Your task to perform on an android device: delete a single message in the gmail app Image 0: 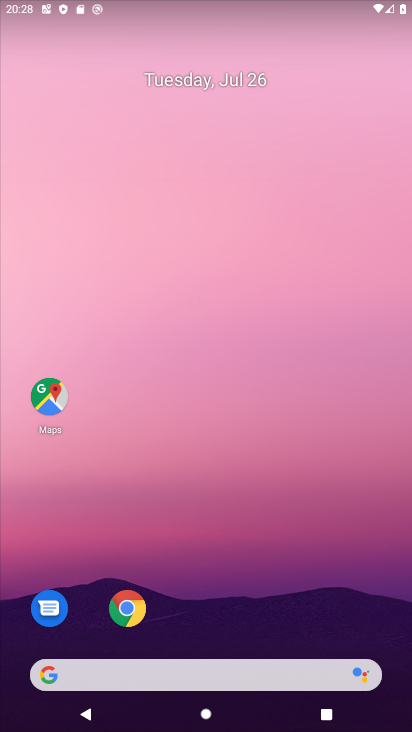
Step 0: drag from (51, 683) to (265, 97)
Your task to perform on an android device: delete a single message in the gmail app Image 1: 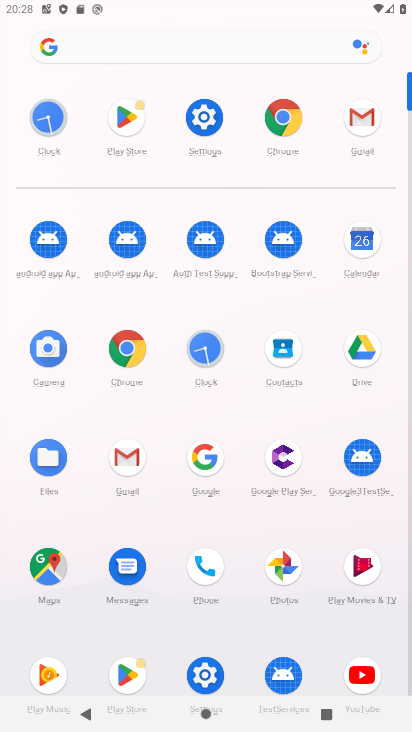
Step 1: click (124, 448)
Your task to perform on an android device: delete a single message in the gmail app Image 2: 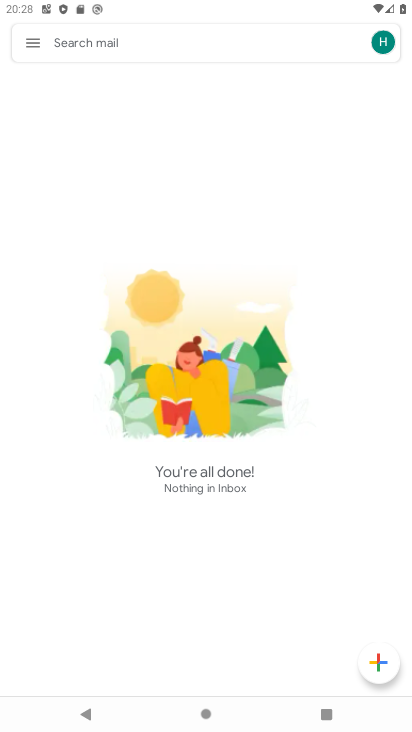
Step 2: click (32, 43)
Your task to perform on an android device: delete a single message in the gmail app Image 3: 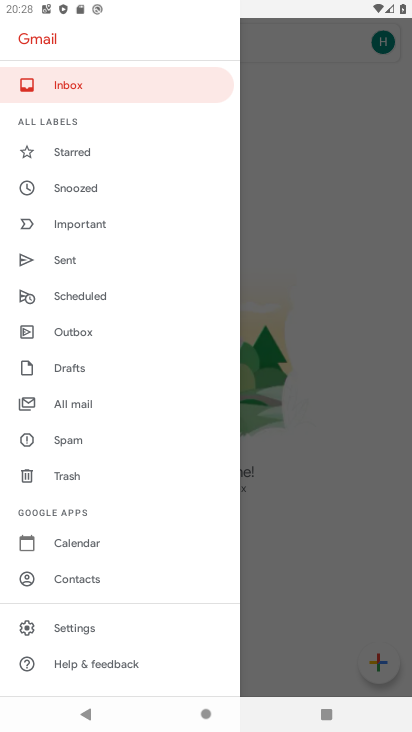
Step 3: click (99, 89)
Your task to perform on an android device: delete a single message in the gmail app Image 4: 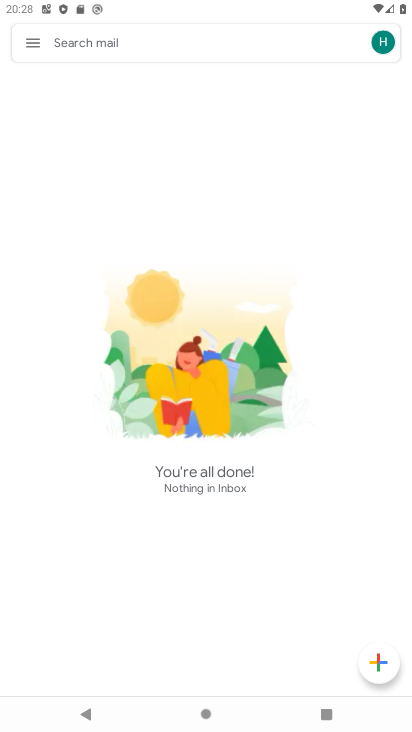
Step 4: task complete